Your task to perform on an android device: open app "Roku - Official Remote Control" Image 0: 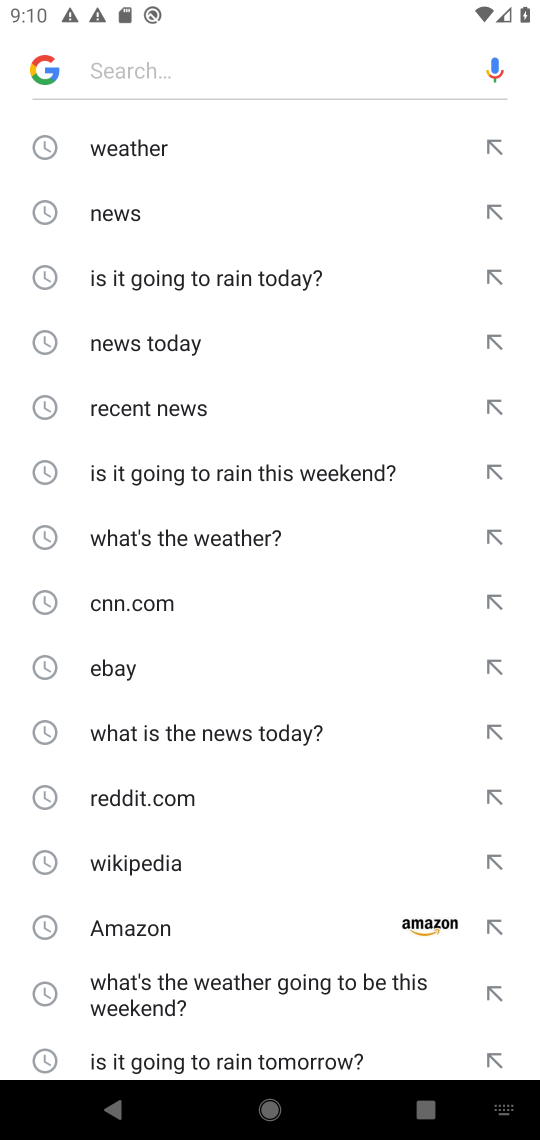
Step 0: press home button
Your task to perform on an android device: open app "Roku - Official Remote Control" Image 1: 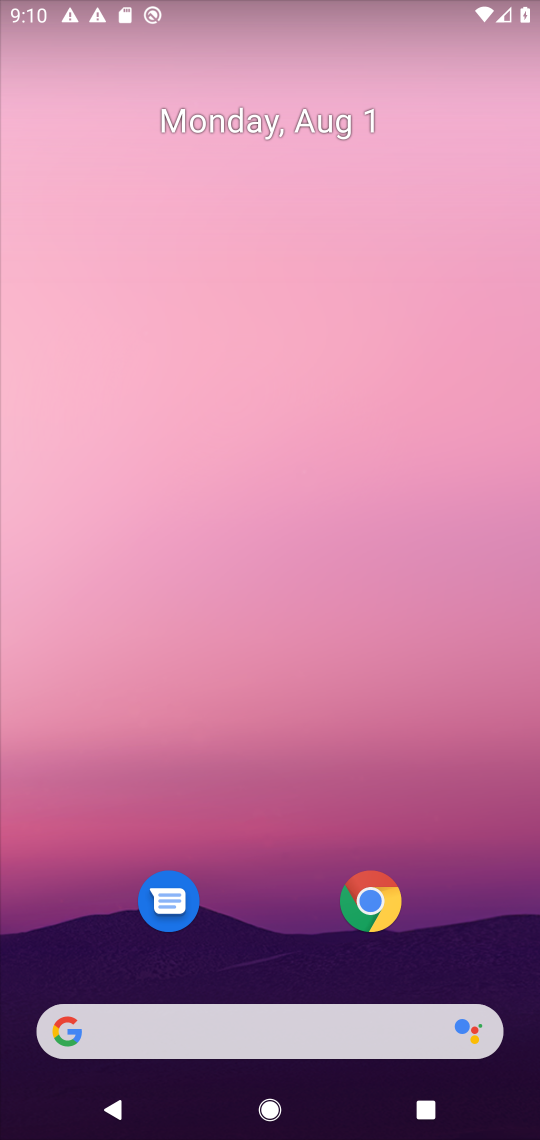
Step 1: drag from (248, 959) to (203, 192)
Your task to perform on an android device: open app "Roku - Official Remote Control" Image 2: 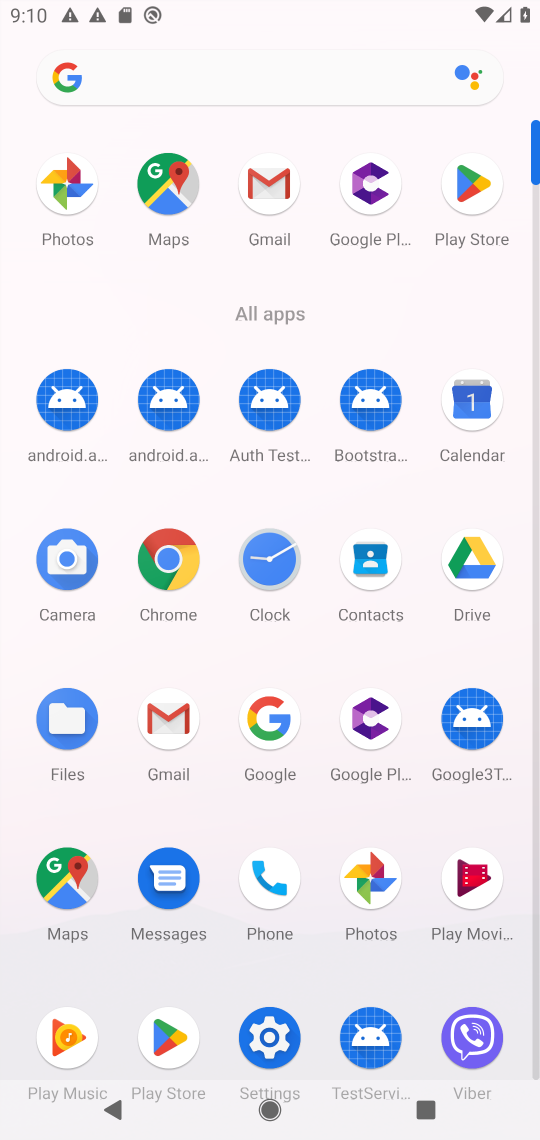
Step 2: click (472, 176)
Your task to perform on an android device: open app "Roku - Official Remote Control" Image 3: 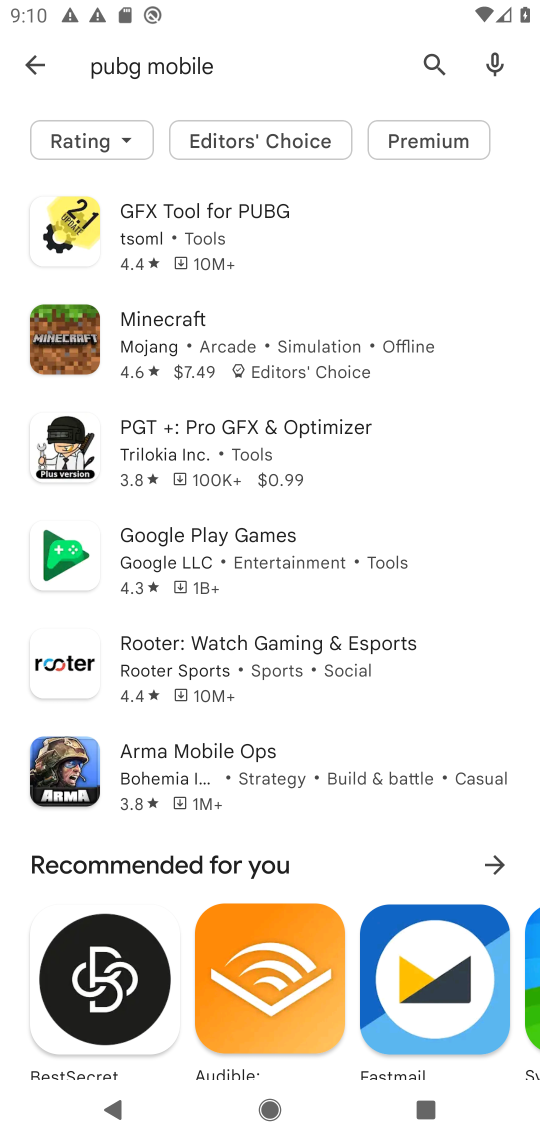
Step 3: click (441, 67)
Your task to perform on an android device: open app "Roku - Official Remote Control" Image 4: 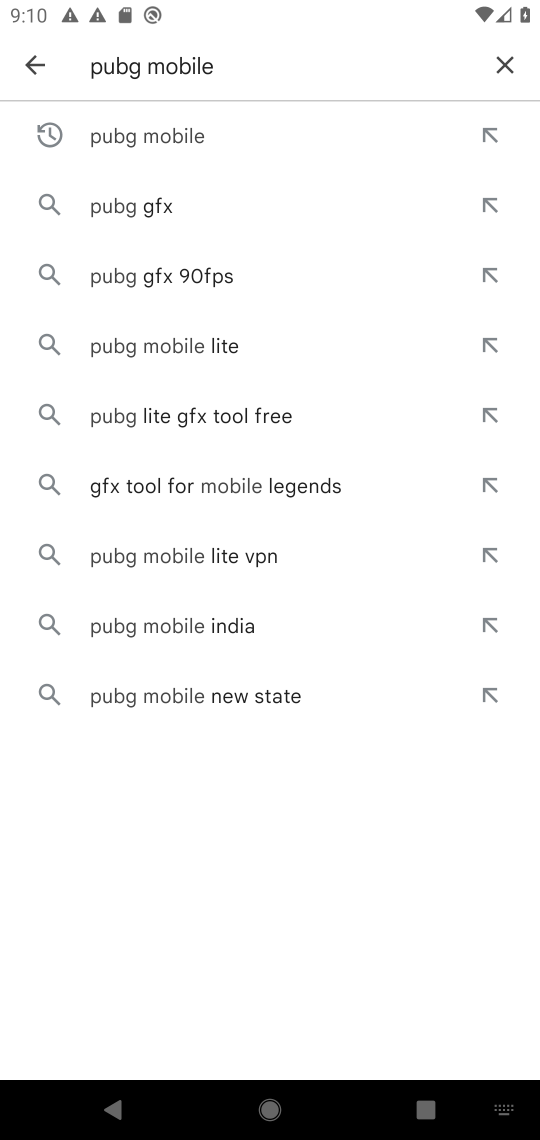
Step 4: click (508, 67)
Your task to perform on an android device: open app "Roku - Official Remote Control" Image 5: 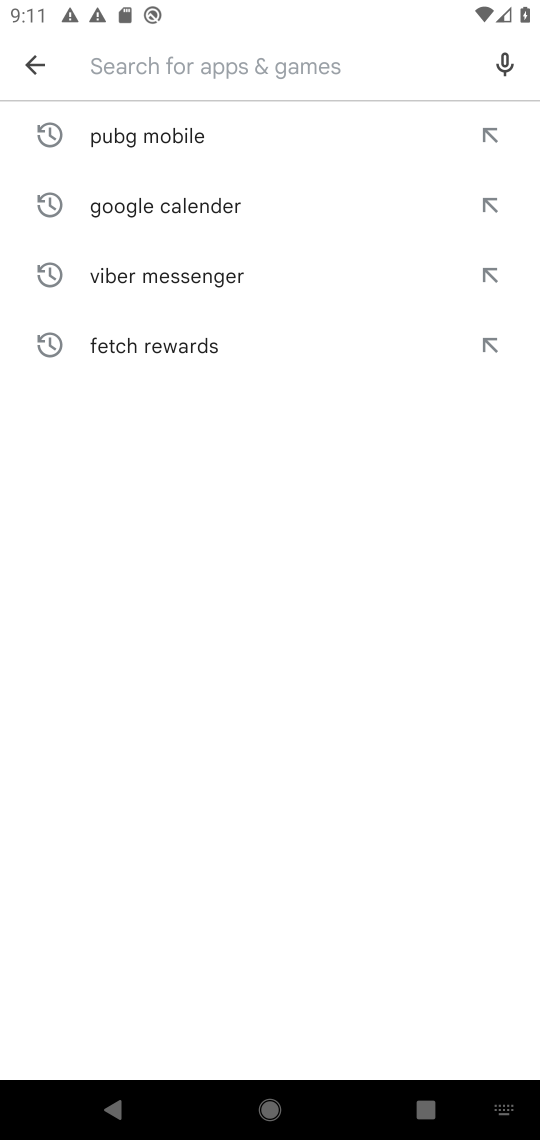
Step 5: type "roku - official remote control"
Your task to perform on an android device: open app "Roku - Official Remote Control" Image 6: 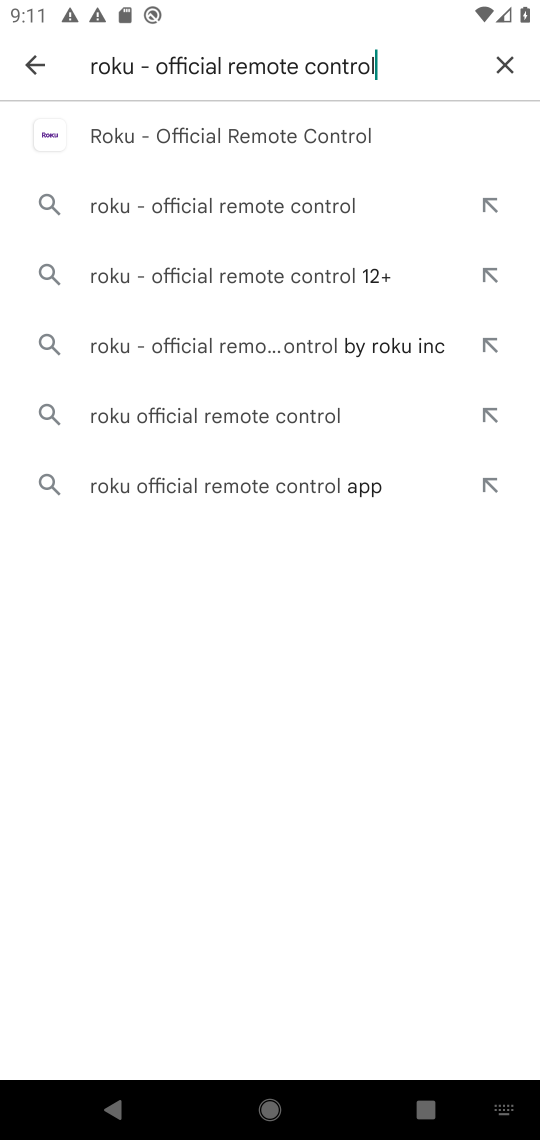
Step 6: click (198, 119)
Your task to perform on an android device: open app "Roku - Official Remote Control" Image 7: 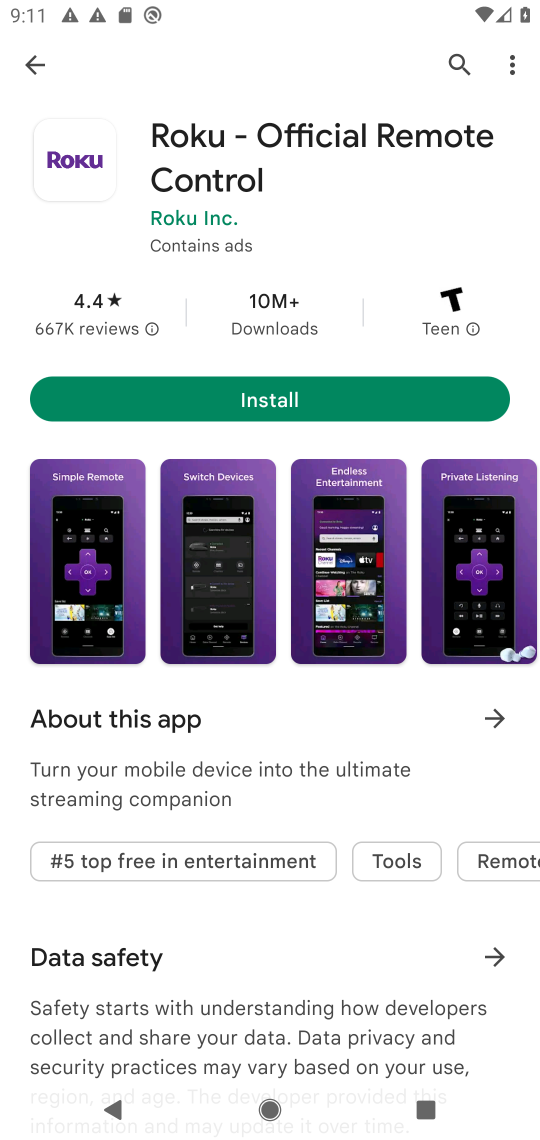
Step 7: task complete